Your task to perform on an android device: turn notification dots on Image 0: 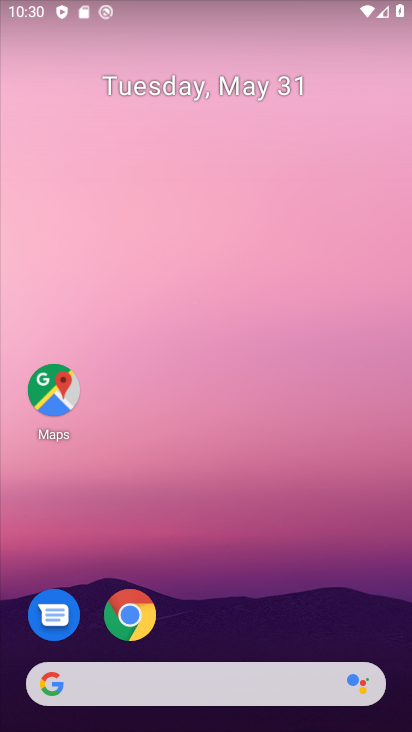
Step 0: task complete